Your task to perform on an android device: Go to Android settings Image 0: 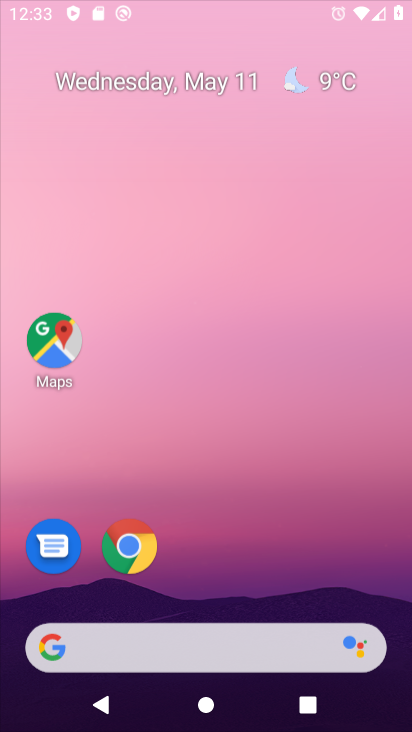
Step 0: click (238, 136)
Your task to perform on an android device: Go to Android settings Image 1: 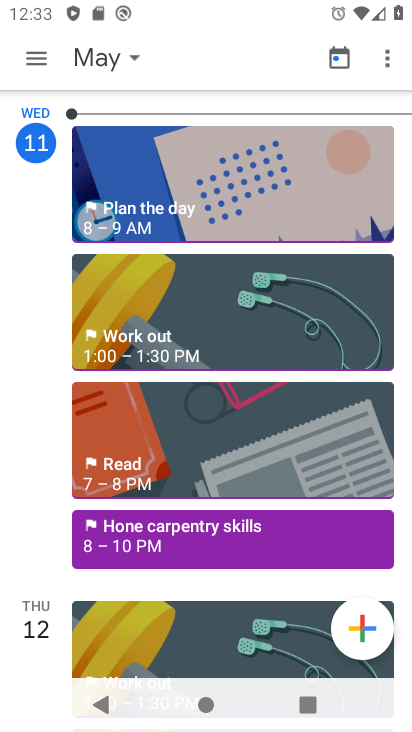
Step 1: drag from (281, 499) to (322, 131)
Your task to perform on an android device: Go to Android settings Image 2: 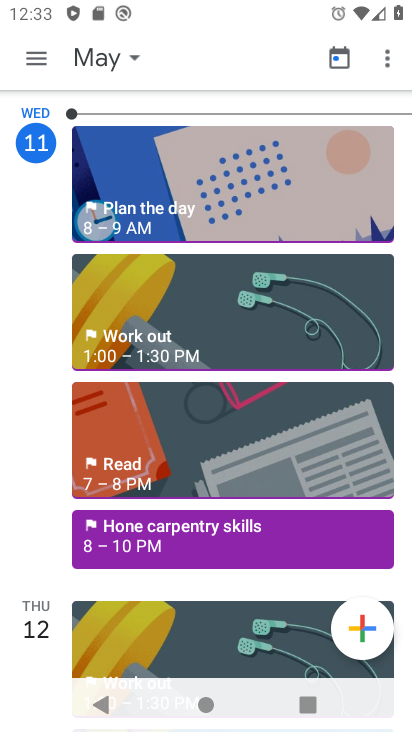
Step 2: press home button
Your task to perform on an android device: Go to Android settings Image 3: 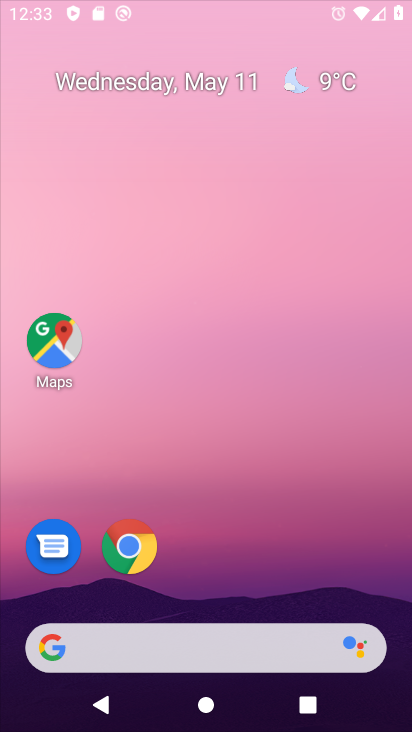
Step 3: drag from (204, 509) to (228, 117)
Your task to perform on an android device: Go to Android settings Image 4: 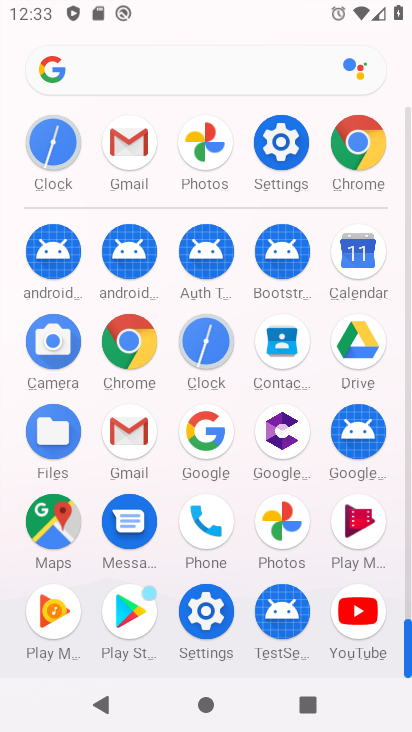
Step 4: click (289, 146)
Your task to perform on an android device: Go to Android settings Image 5: 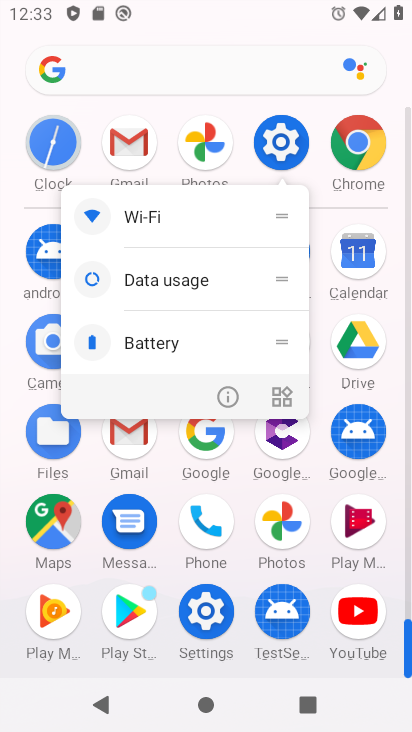
Step 5: click (228, 389)
Your task to perform on an android device: Go to Android settings Image 6: 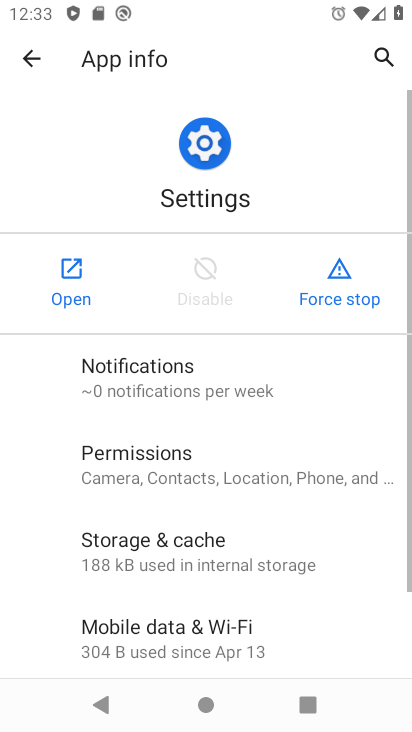
Step 6: click (96, 292)
Your task to perform on an android device: Go to Android settings Image 7: 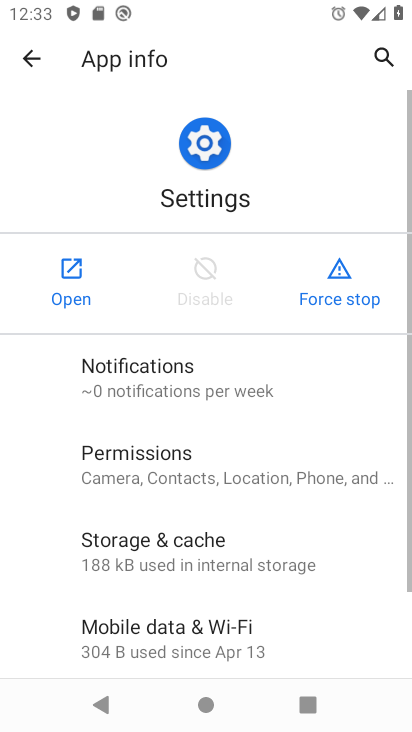
Step 7: click (96, 292)
Your task to perform on an android device: Go to Android settings Image 8: 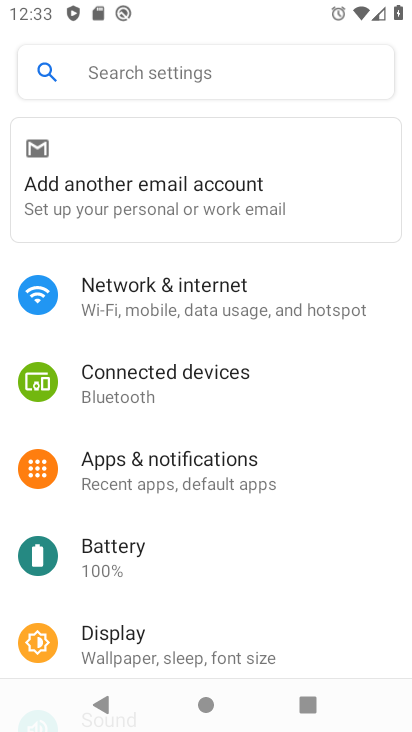
Step 8: drag from (189, 571) to (326, 106)
Your task to perform on an android device: Go to Android settings Image 9: 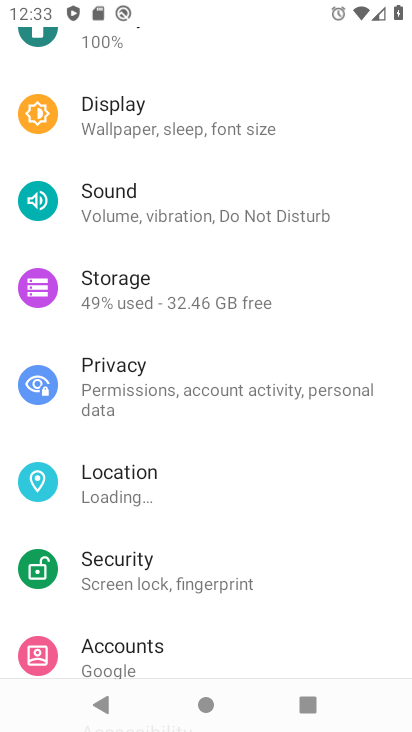
Step 9: drag from (160, 583) to (215, 159)
Your task to perform on an android device: Go to Android settings Image 10: 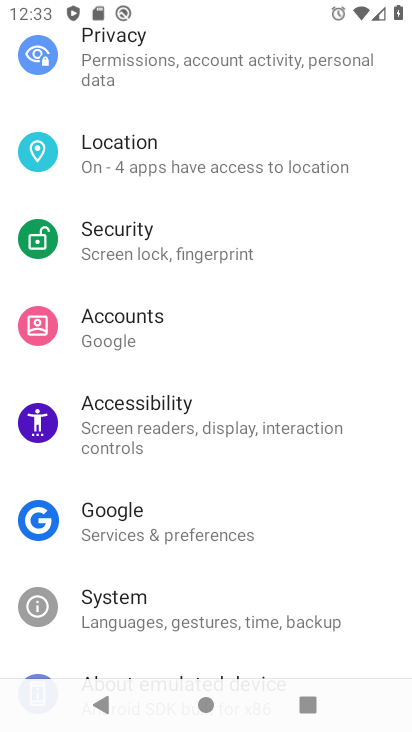
Step 10: drag from (128, 631) to (167, 141)
Your task to perform on an android device: Go to Android settings Image 11: 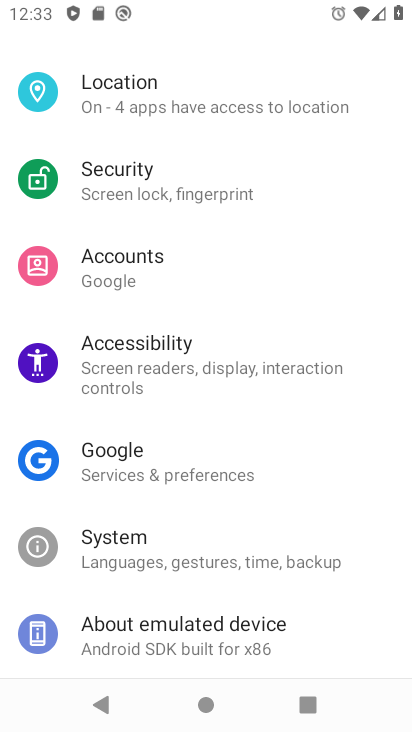
Step 11: click (161, 624)
Your task to perform on an android device: Go to Android settings Image 12: 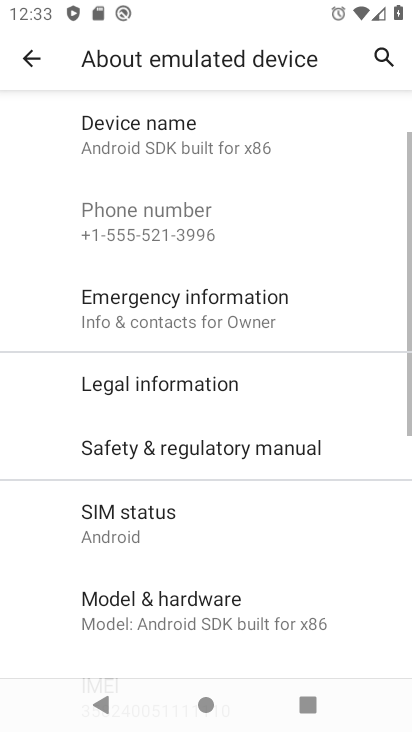
Step 12: drag from (207, 636) to (293, 241)
Your task to perform on an android device: Go to Android settings Image 13: 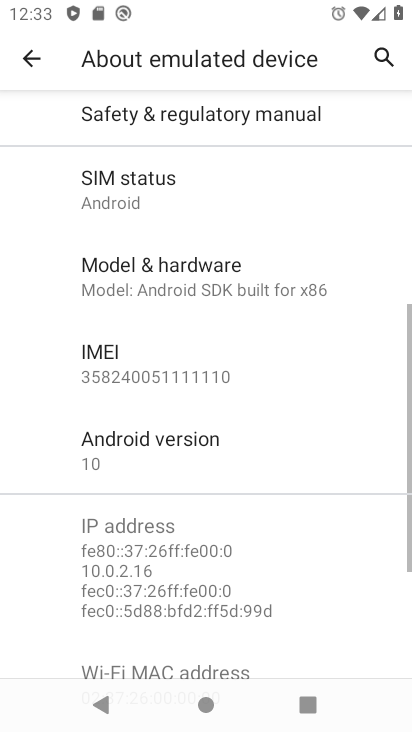
Step 13: click (193, 451)
Your task to perform on an android device: Go to Android settings Image 14: 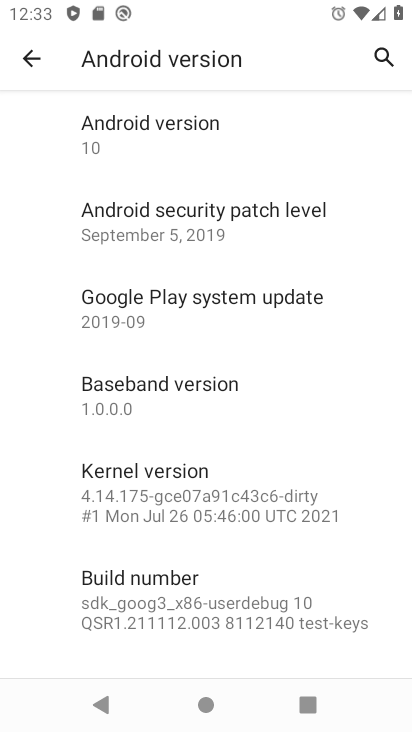
Step 14: task complete